Your task to perform on an android device: open device folders in google photos Image 0: 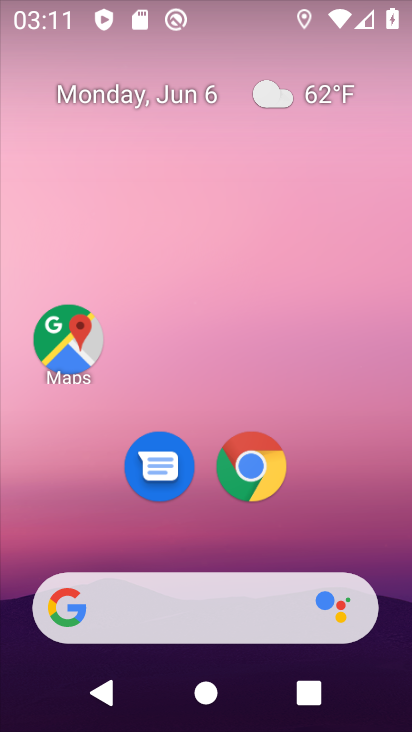
Step 0: drag from (344, 481) to (330, 68)
Your task to perform on an android device: open device folders in google photos Image 1: 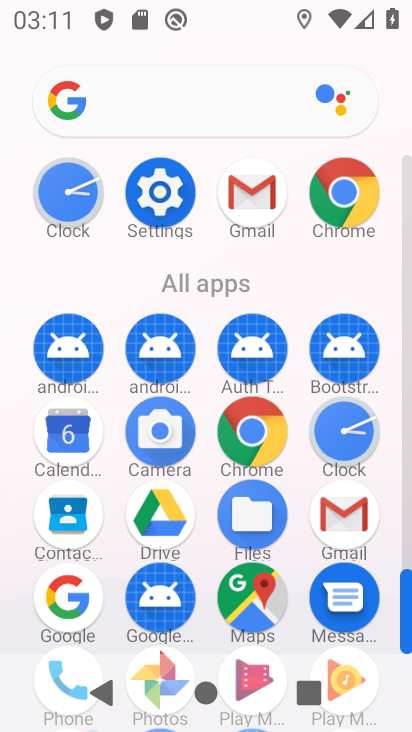
Step 1: drag from (200, 505) to (217, 279)
Your task to perform on an android device: open device folders in google photos Image 2: 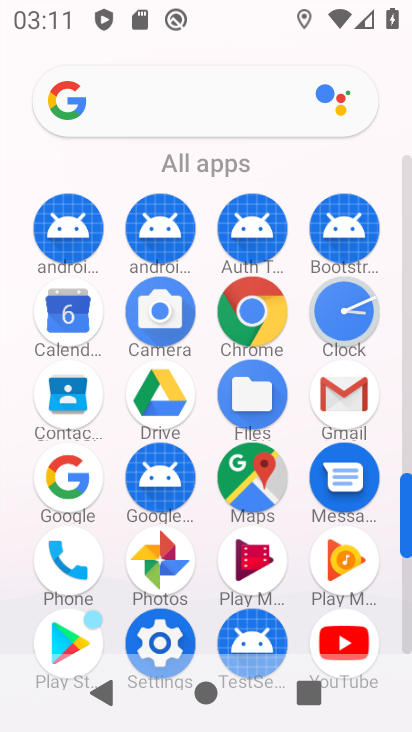
Step 2: click (171, 551)
Your task to perform on an android device: open device folders in google photos Image 3: 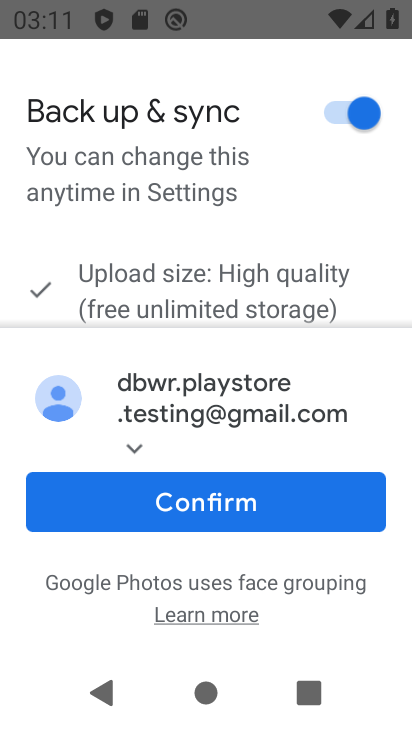
Step 3: click (284, 489)
Your task to perform on an android device: open device folders in google photos Image 4: 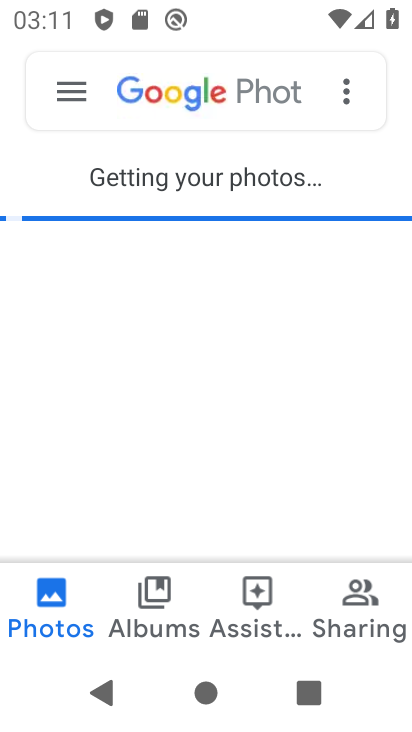
Step 4: click (33, 83)
Your task to perform on an android device: open device folders in google photos Image 5: 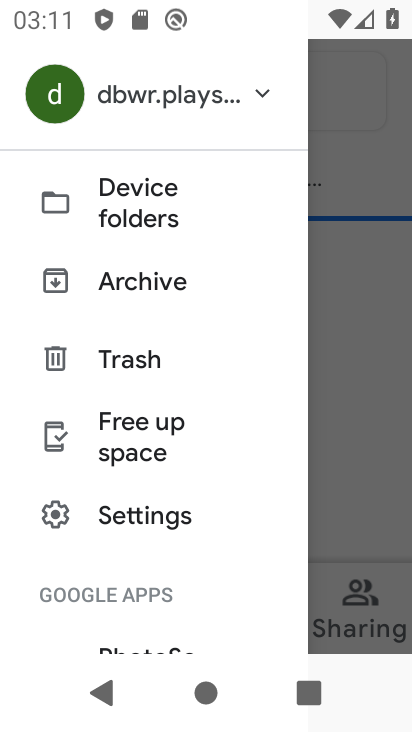
Step 5: click (151, 218)
Your task to perform on an android device: open device folders in google photos Image 6: 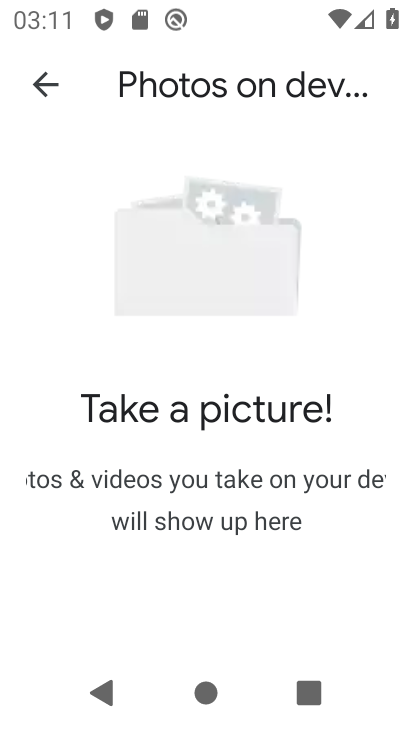
Step 6: task complete